Your task to perform on an android device: Look up the top rated 18v miter saw on Home Depot. Image 0: 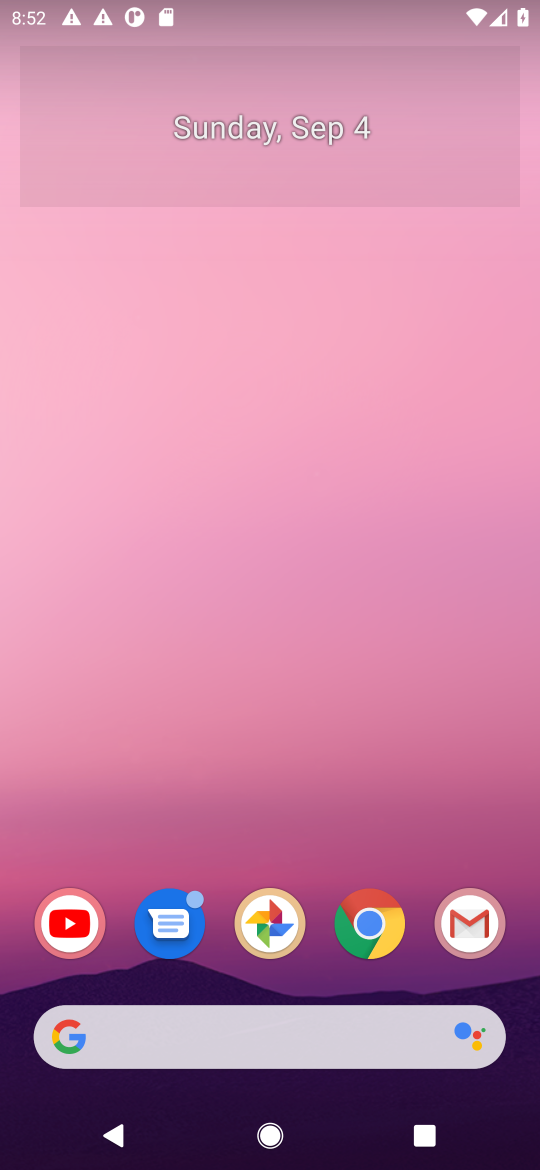
Step 0: click (390, 924)
Your task to perform on an android device: Look up the top rated 18v miter saw on Home Depot. Image 1: 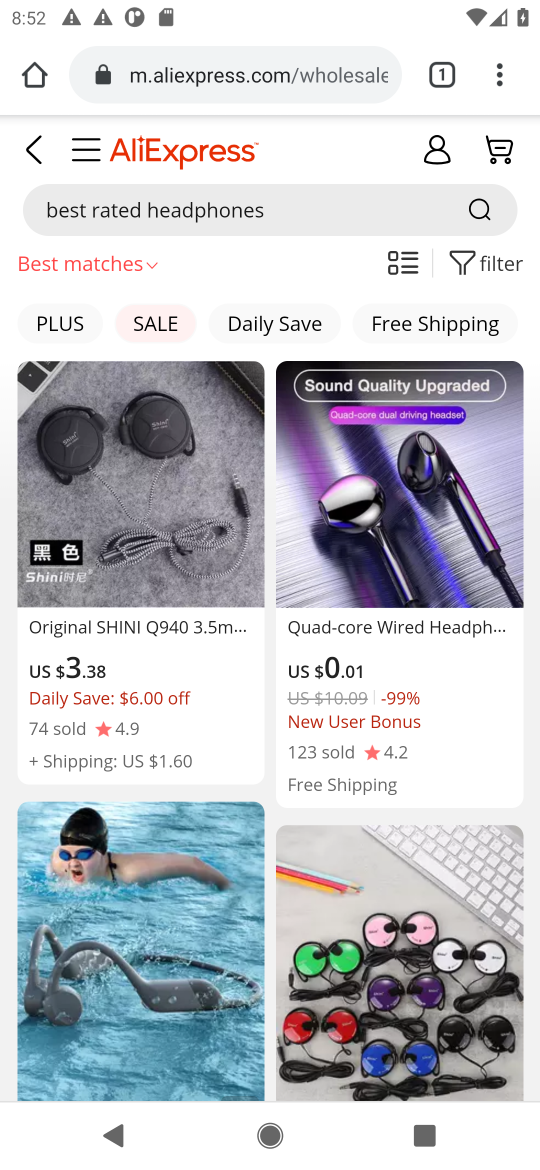
Step 1: click (477, 536)
Your task to perform on an android device: Look up the top rated 18v miter saw on Home Depot. Image 2: 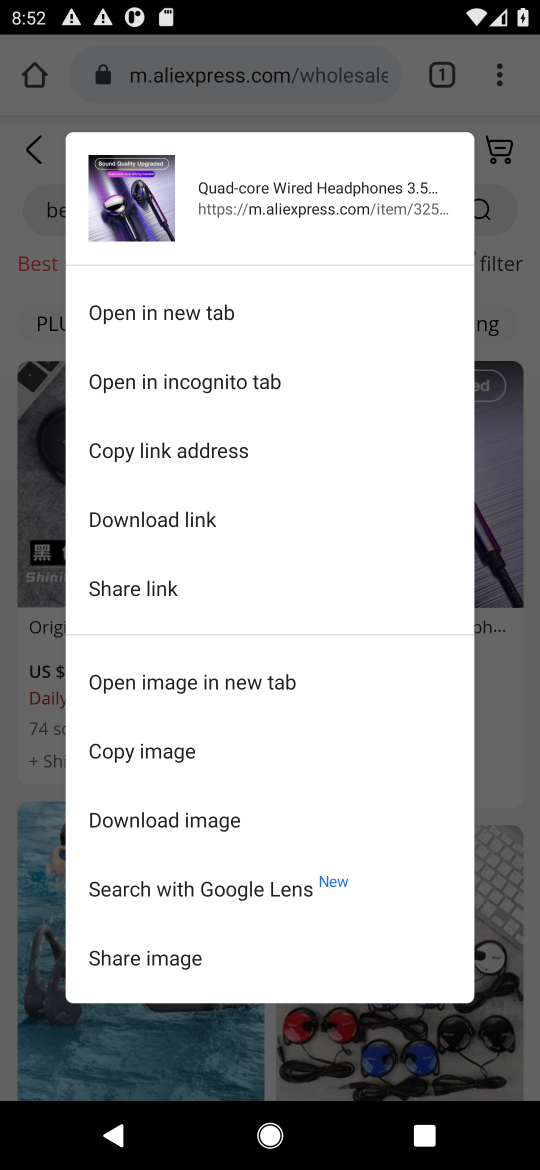
Step 2: click (507, 254)
Your task to perform on an android device: Look up the top rated 18v miter saw on Home Depot. Image 3: 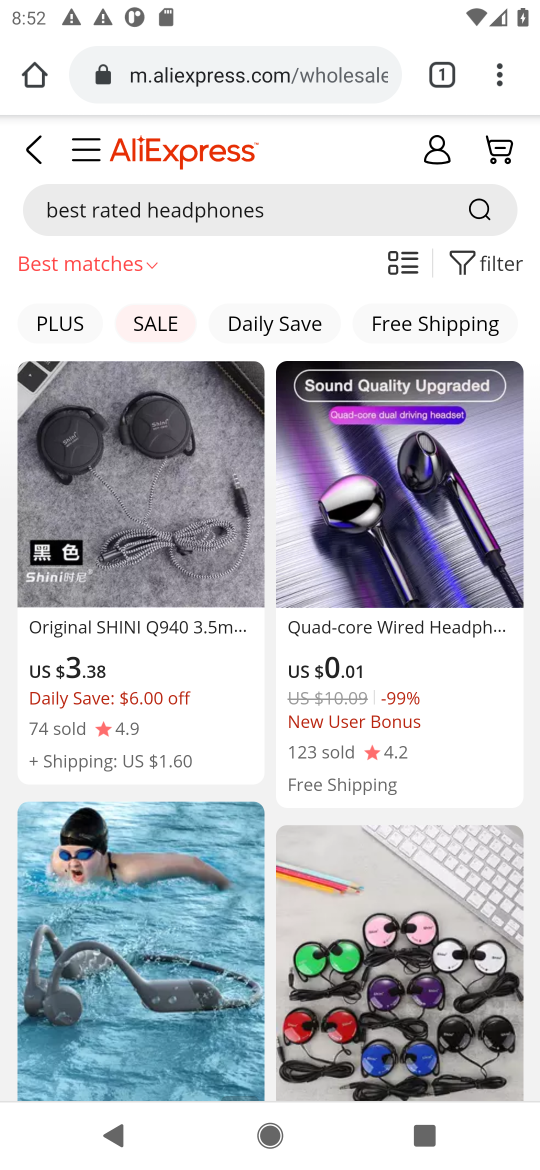
Step 3: click (307, 72)
Your task to perform on an android device: Look up the top rated 18v miter saw on Home Depot. Image 4: 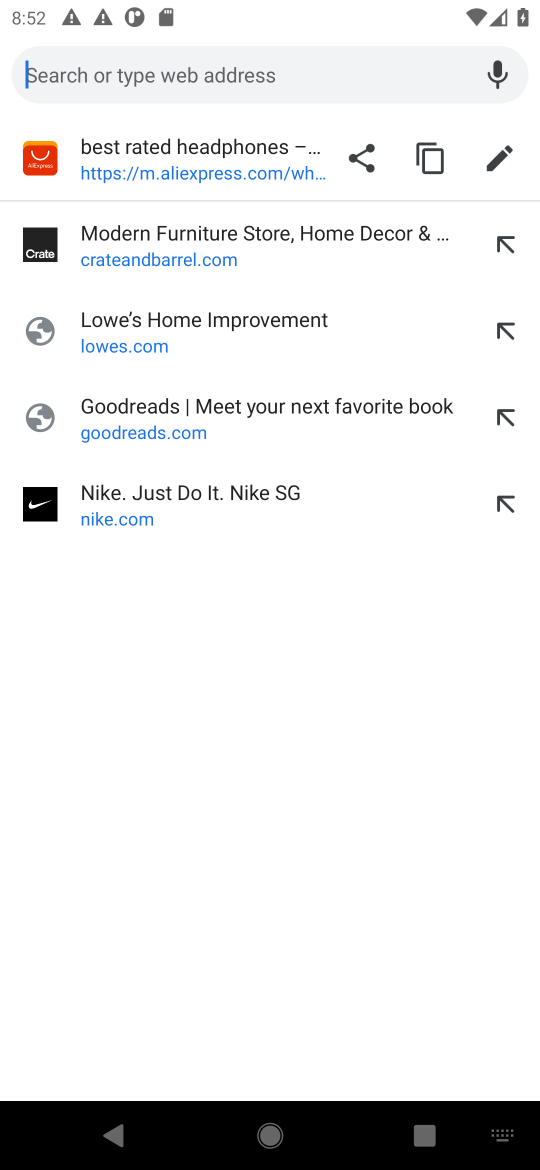
Step 4: type "homedepot.com"
Your task to perform on an android device: Look up the top rated 18v miter saw on Home Depot. Image 5: 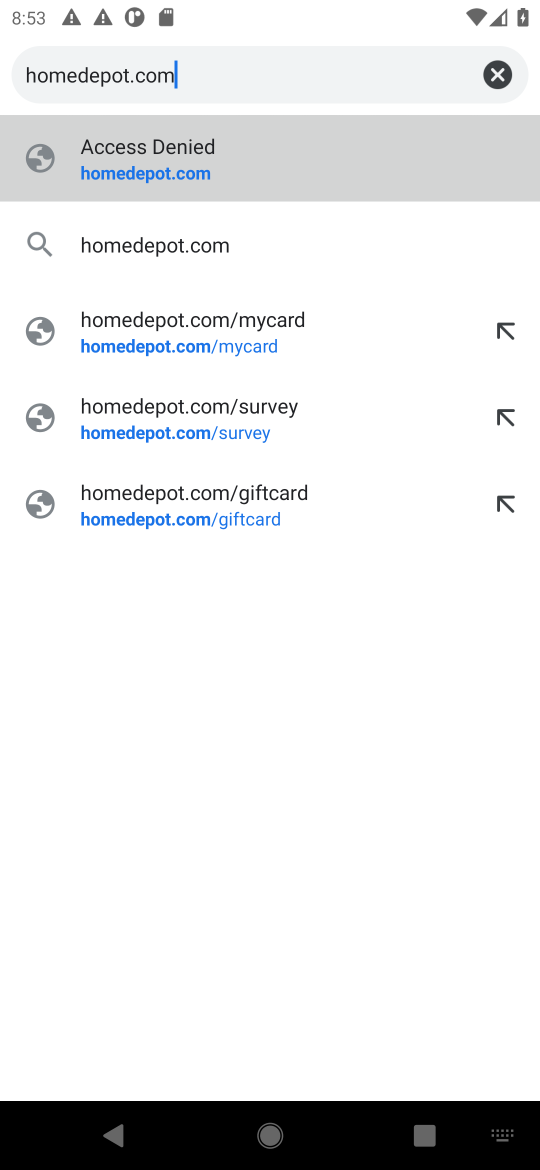
Step 5: click (228, 152)
Your task to perform on an android device: Look up the top rated 18v miter saw on Home Depot. Image 6: 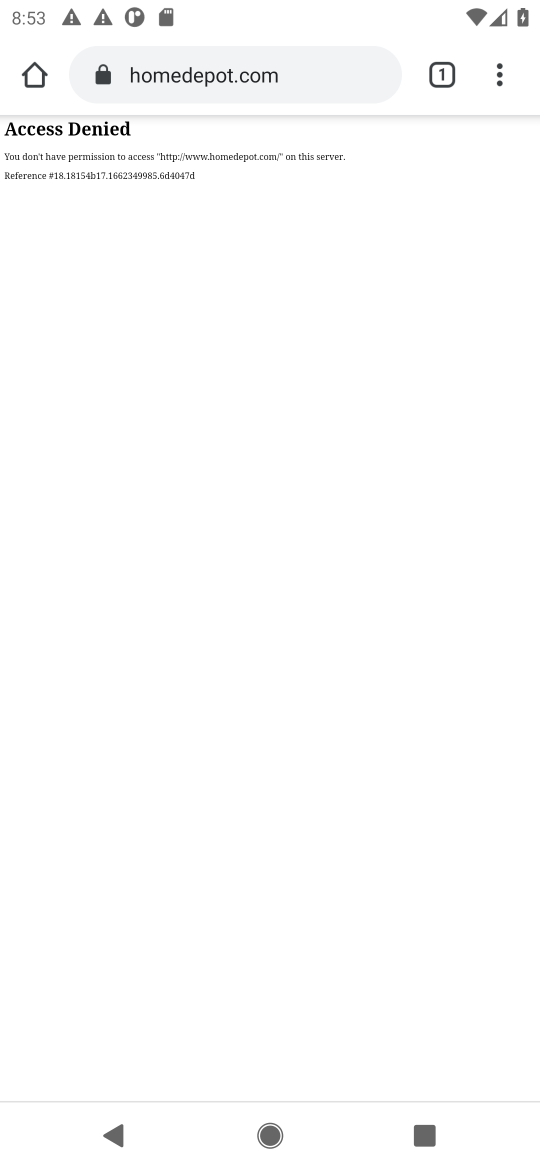
Step 6: task complete